Your task to perform on an android device: open a new tab in the chrome app Image 0: 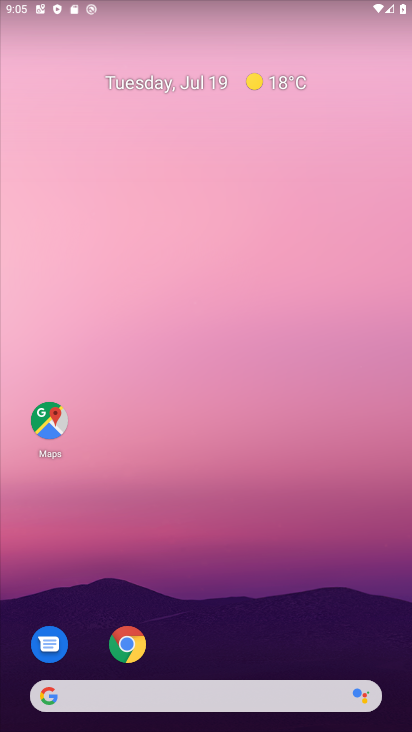
Step 0: drag from (207, 725) to (229, 211)
Your task to perform on an android device: open a new tab in the chrome app Image 1: 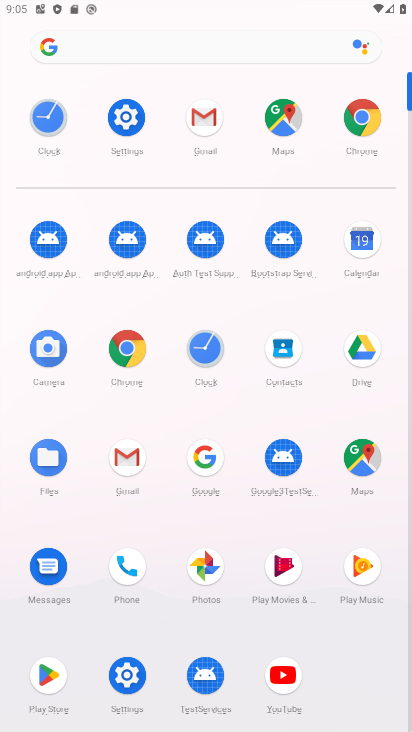
Step 1: click (130, 354)
Your task to perform on an android device: open a new tab in the chrome app Image 2: 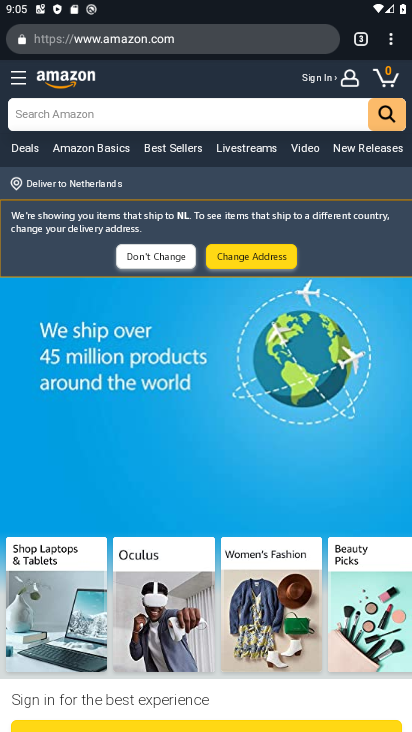
Step 2: click (393, 43)
Your task to perform on an android device: open a new tab in the chrome app Image 3: 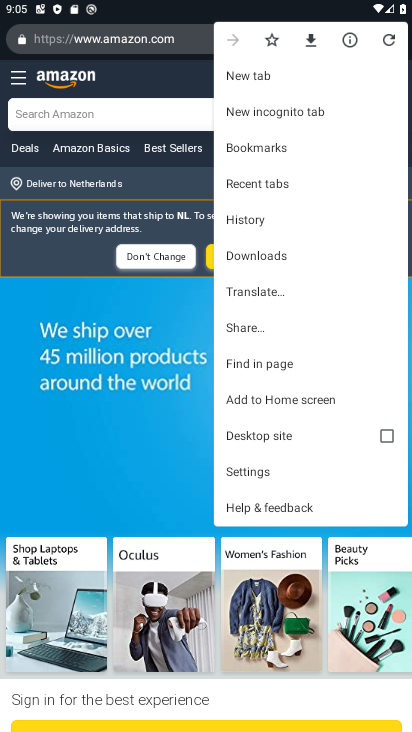
Step 3: click (250, 75)
Your task to perform on an android device: open a new tab in the chrome app Image 4: 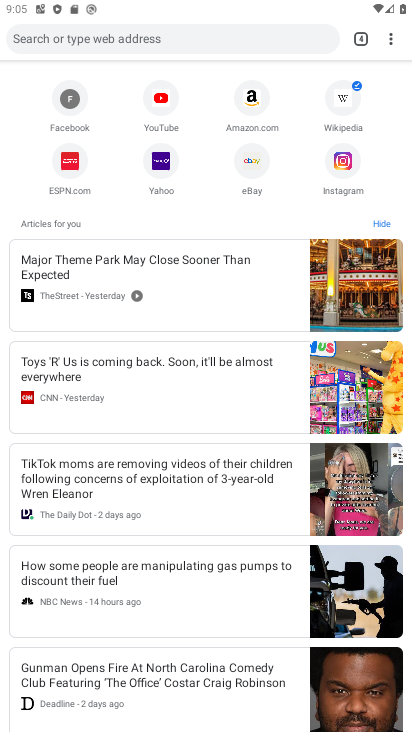
Step 4: task complete